Your task to perform on an android device: Go to Google maps Image 0: 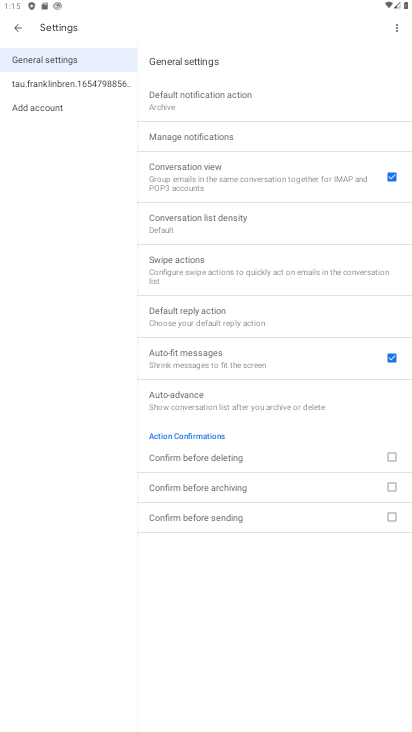
Step 0: press home button
Your task to perform on an android device: Go to Google maps Image 1: 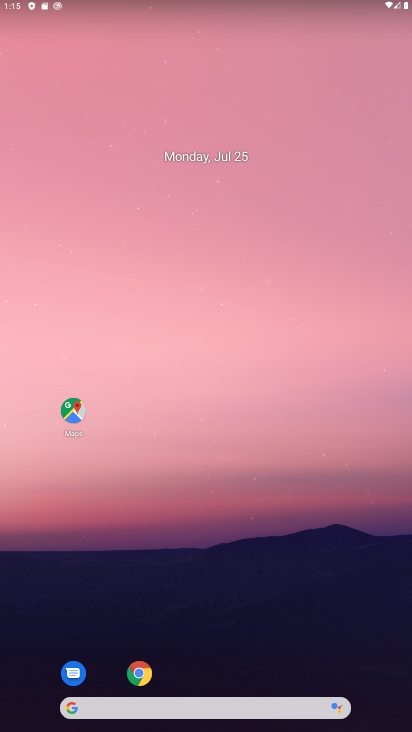
Step 1: click (71, 409)
Your task to perform on an android device: Go to Google maps Image 2: 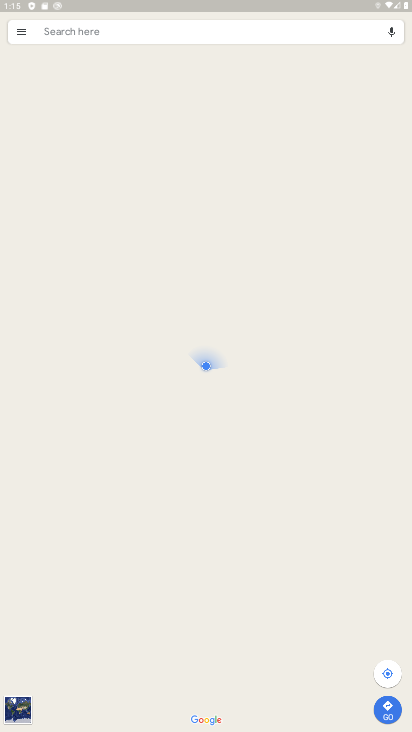
Step 2: task complete